Your task to perform on an android device: add a contact in the contacts app Image 0: 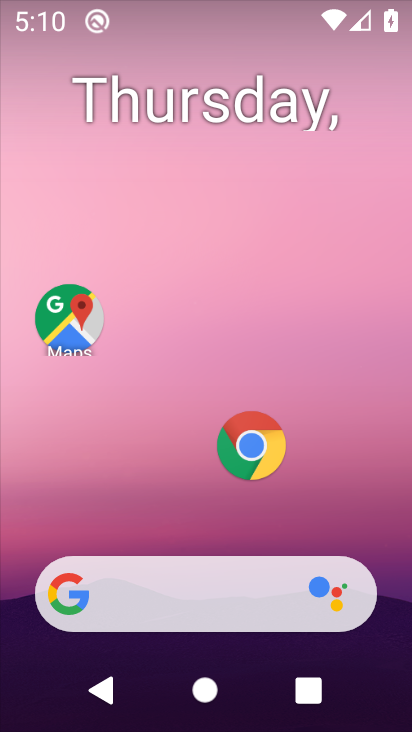
Step 0: drag from (140, 94) to (89, 34)
Your task to perform on an android device: add a contact in the contacts app Image 1: 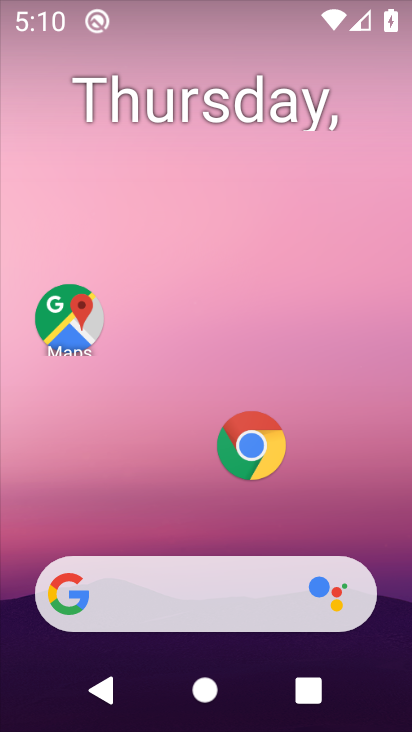
Step 1: drag from (279, 494) to (203, 0)
Your task to perform on an android device: add a contact in the contacts app Image 2: 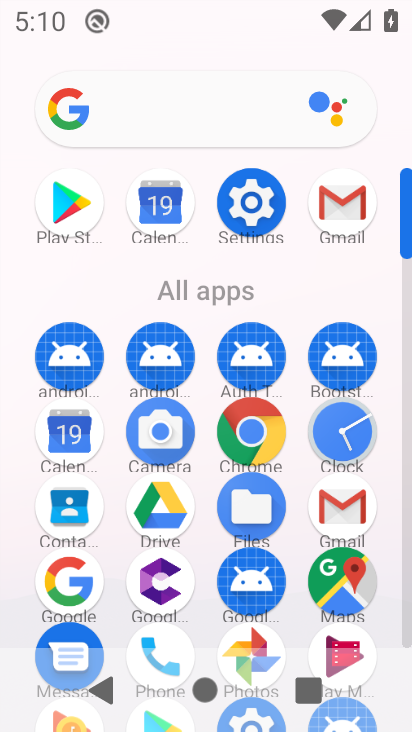
Step 2: drag from (142, 157) to (216, 296)
Your task to perform on an android device: add a contact in the contacts app Image 3: 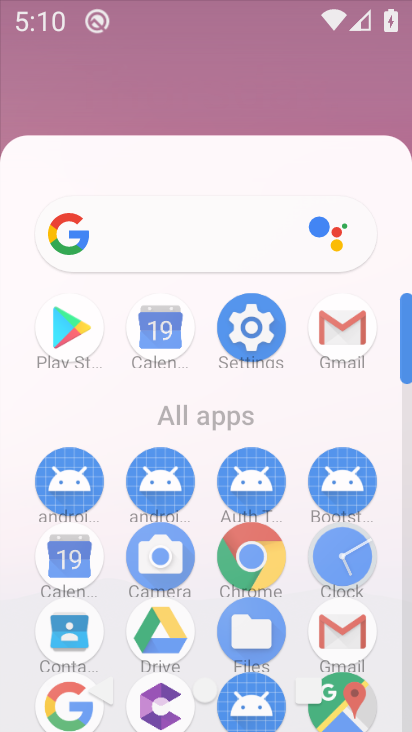
Step 3: click (245, 194)
Your task to perform on an android device: add a contact in the contacts app Image 4: 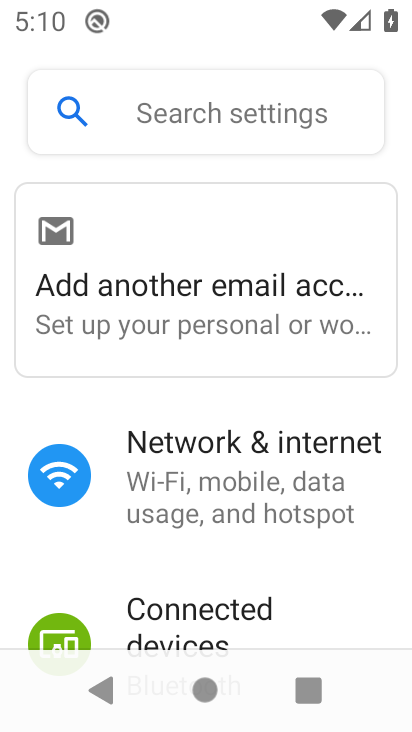
Step 4: press home button
Your task to perform on an android device: add a contact in the contacts app Image 5: 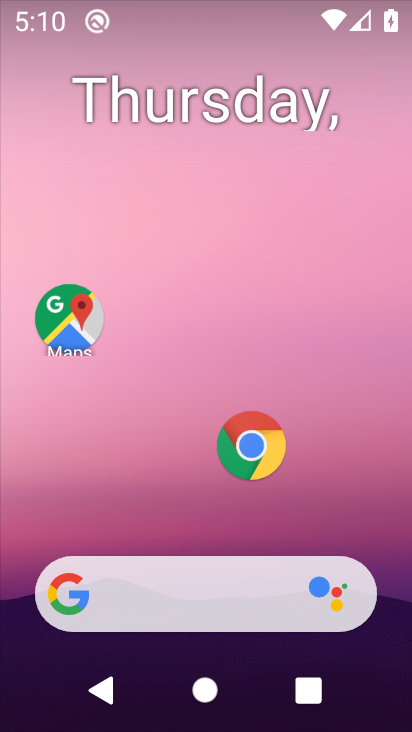
Step 5: drag from (340, 627) to (83, 61)
Your task to perform on an android device: add a contact in the contacts app Image 6: 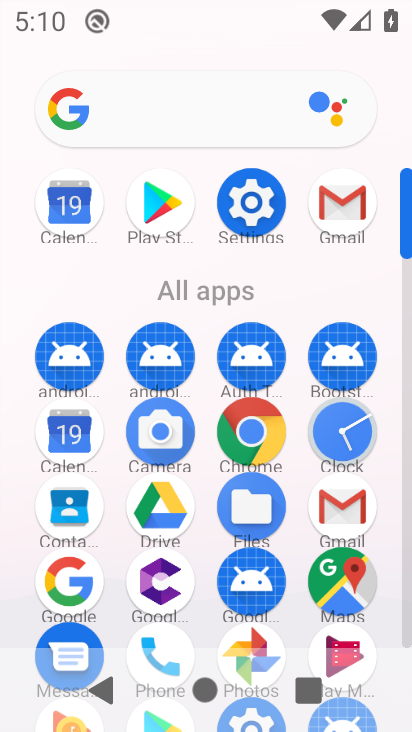
Step 6: drag from (287, 540) to (191, 249)
Your task to perform on an android device: add a contact in the contacts app Image 7: 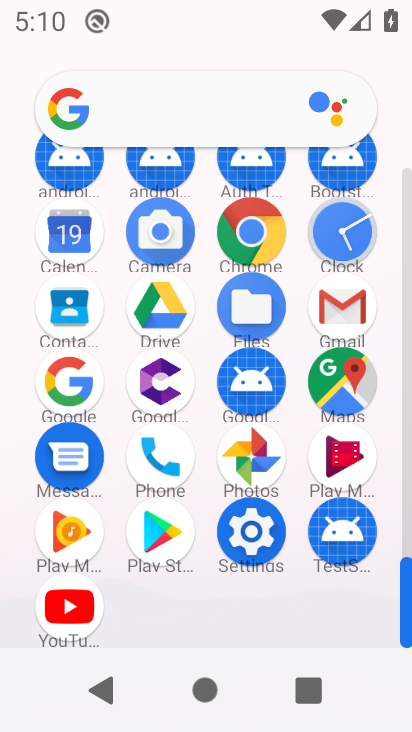
Step 7: drag from (236, 426) to (212, 159)
Your task to perform on an android device: add a contact in the contacts app Image 8: 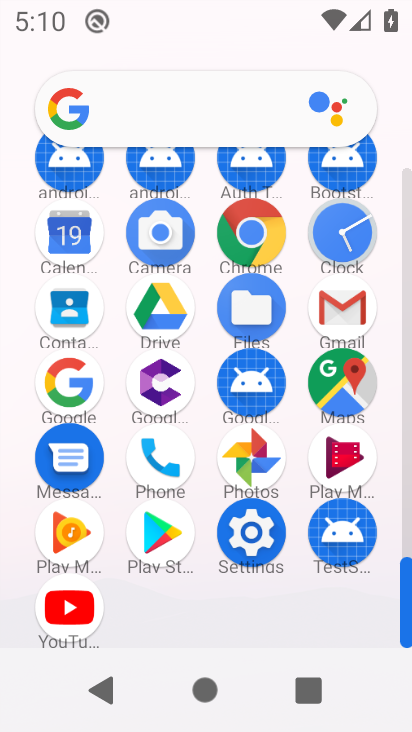
Step 8: click (63, 314)
Your task to perform on an android device: add a contact in the contacts app Image 9: 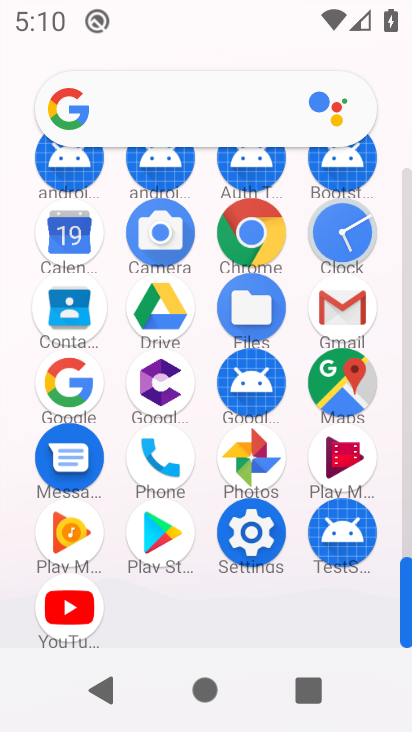
Step 9: click (67, 314)
Your task to perform on an android device: add a contact in the contacts app Image 10: 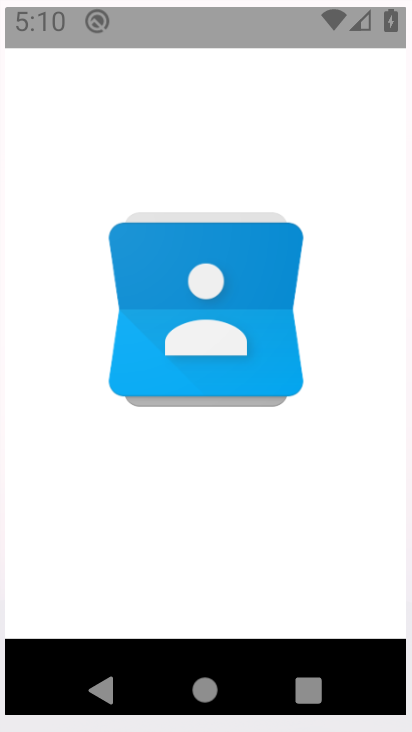
Step 10: click (68, 313)
Your task to perform on an android device: add a contact in the contacts app Image 11: 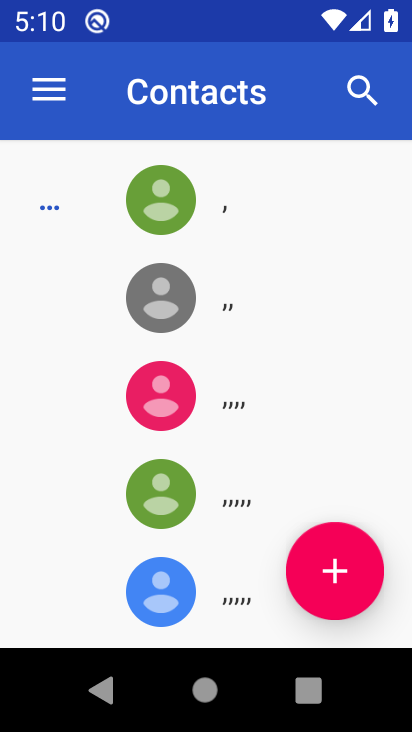
Step 11: click (331, 560)
Your task to perform on an android device: add a contact in the contacts app Image 12: 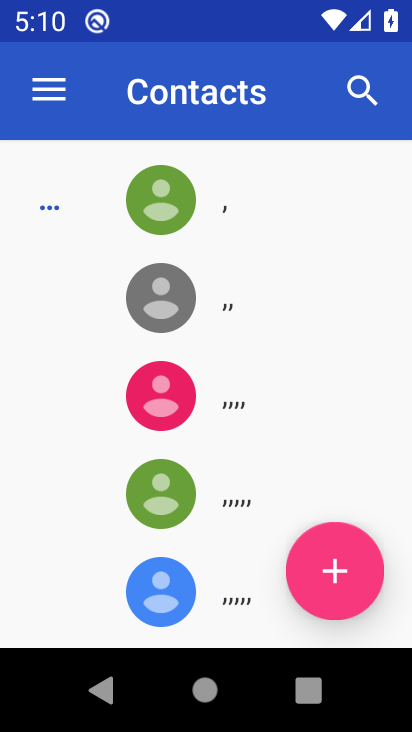
Step 12: click (331, 562)
Your task to perform on an android device: add a contact in the contacts app Image 13: 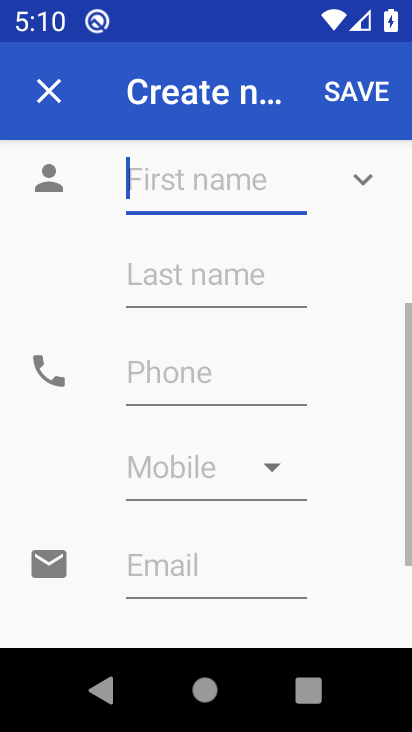
Step 13: click (334, 563)
Your task to perform on an android device: add a contact in the contacts app Image 14: 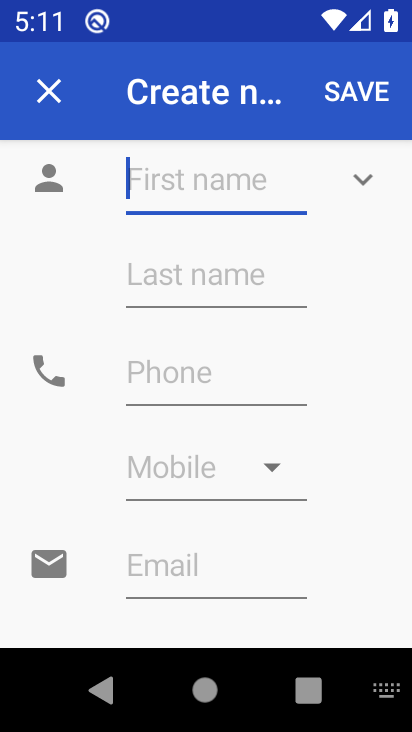
Step 14: type "hgfghjhgi"
Your task to perform on an android device: add a contact in the contacts app Image 15: 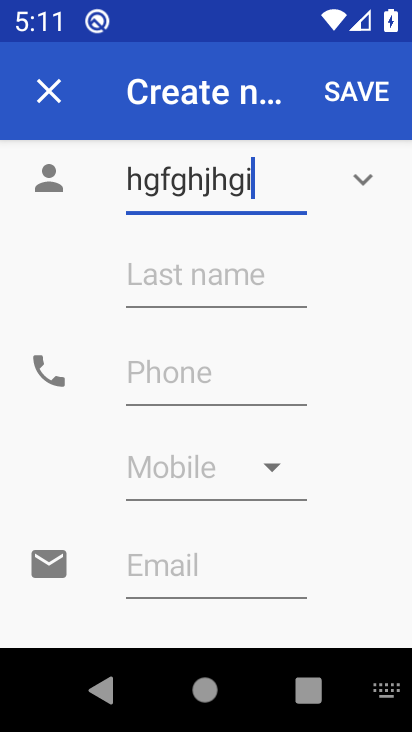
Step 15: click (150, 371)
Your task to perform on an android device: add a contact in the contacts app Image 16: 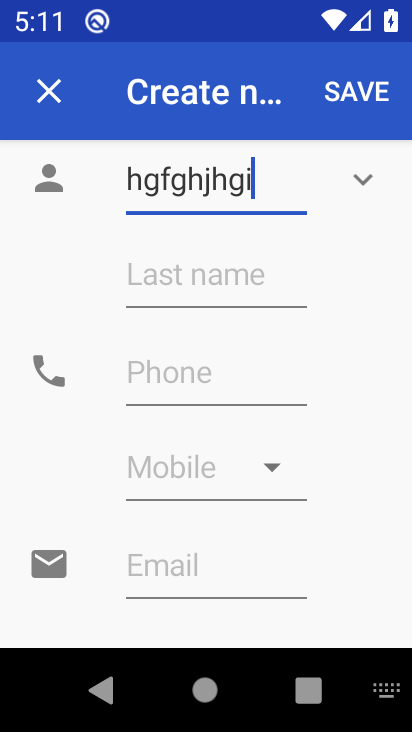
Step 16: click (150, 371)
Your task to perform on an android device: add a contact in the contacts app Image 17: 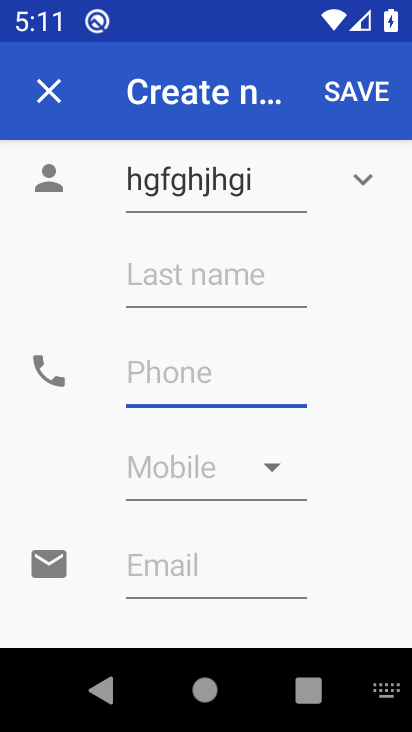
Step 17: type "67869879899"
Your task to perform on an android device: add a contact in the contacts app Image 18: 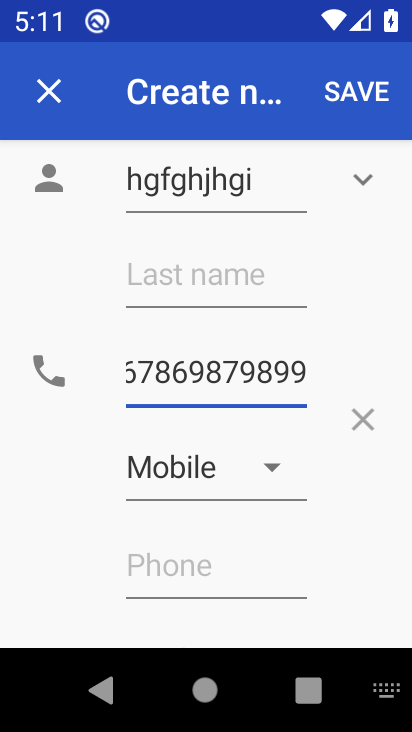
Step 18: click (349, 83)
Your task to perform on an android device: add a contact in the contacts app Image 19: 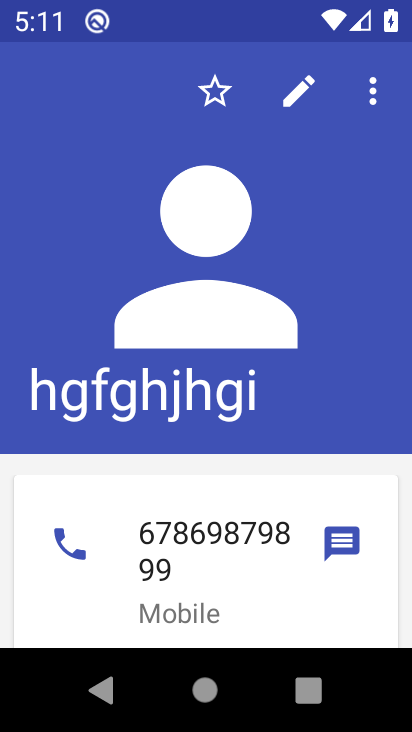
Step 19: task complete